Your task to perform on an android device: toggle wifi Image 0: 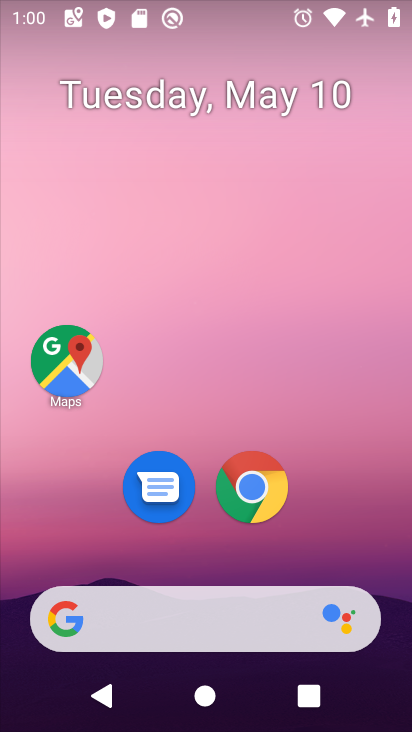
Step 0: drag from (310, 536) to (259, 18)
Your task to perform on an android device: toggle wifi Image 1: 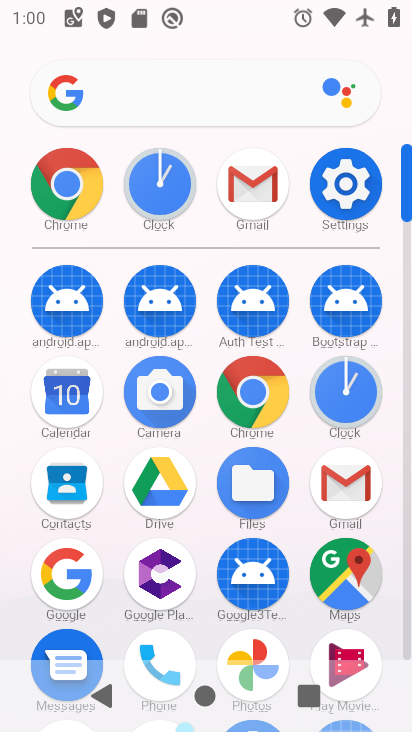
Step 1: click (329, 176)
Your task to perform on an android device: toggle wifi Image 2: 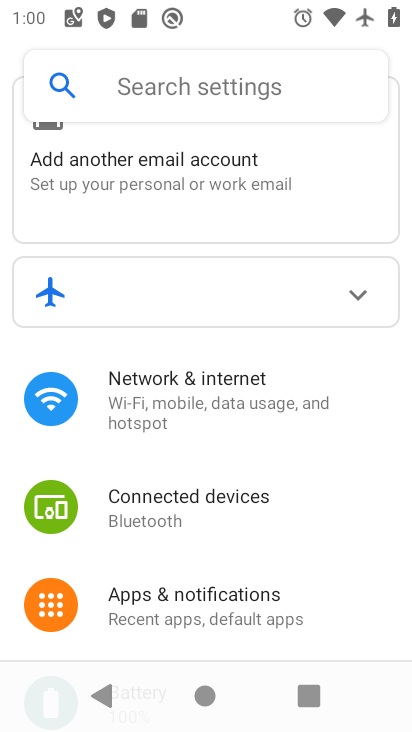
Step 2: click (262, 412)
Your task to perform on an android device: toggle wifi Image 3: 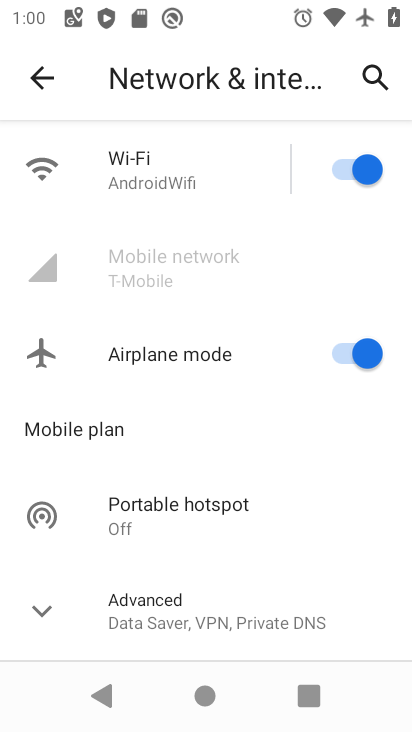
Step 3: click (147, 204)
Your task to perform on an android device: toggle wifi Image 4: 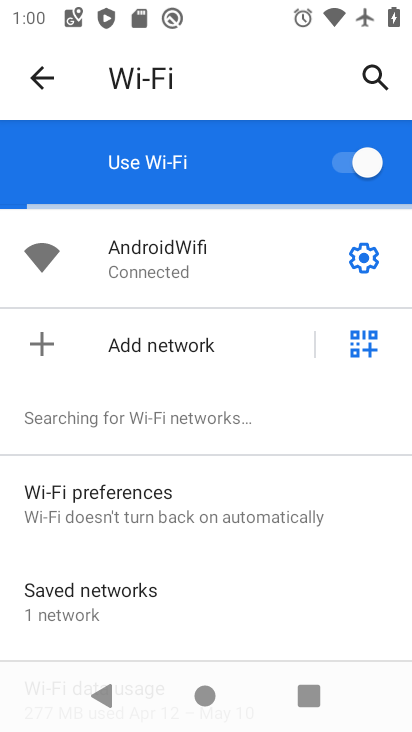
Step 4: task complete